Your task to perform on an android device: Open Youtube and go to the subscriptions tab Image 0: 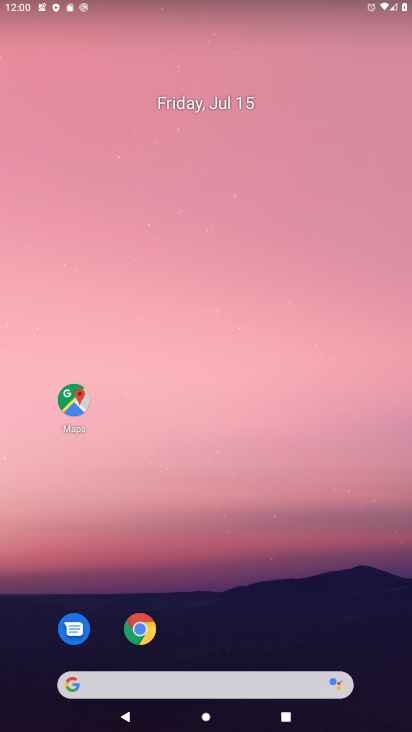
Step 0: press home button
Your task to perform on an android device: Open Youtube and go to the subscriptions tab Image 1: 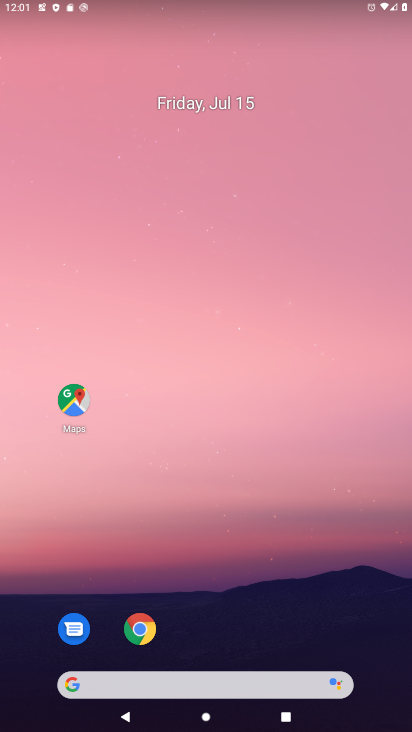
Step 1: drag from (267, 638) to (303, 21)
Your task to perform on an android device: Open Youtube and go to the subscriptions tab Image 2: 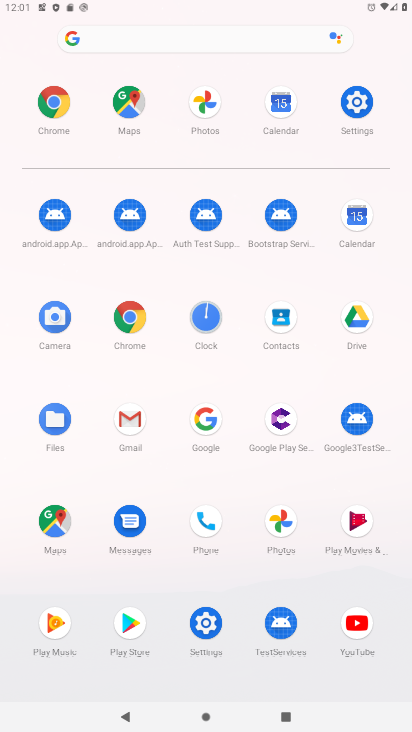
Step 2: click (363, 628)
Your task to perform on an android device: Open Youtube and go to the subscriptions tab Image 3: 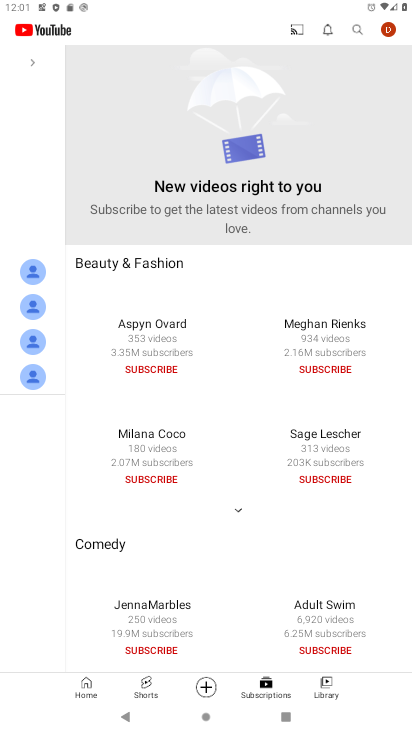
Step 3: click (265, 686)
Your task to perform on an android device: Open Youtube and go to the subscriptions tab Image 4: 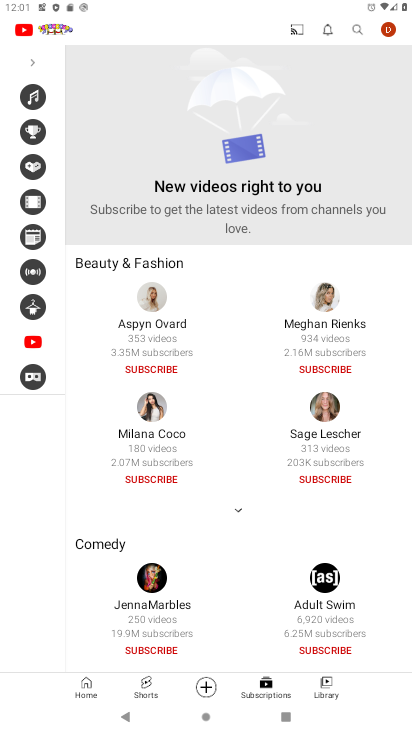
Step 4: task complete